Your task to perform on an android device: toggle notifications settings in the gmail app Image 0: 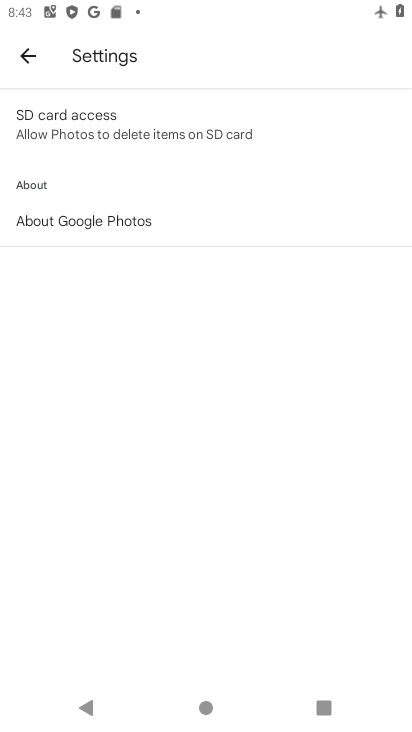
Step 0: press home button
Your task to perform on an android device: toggle notifications settings in the gmail app Image 1: 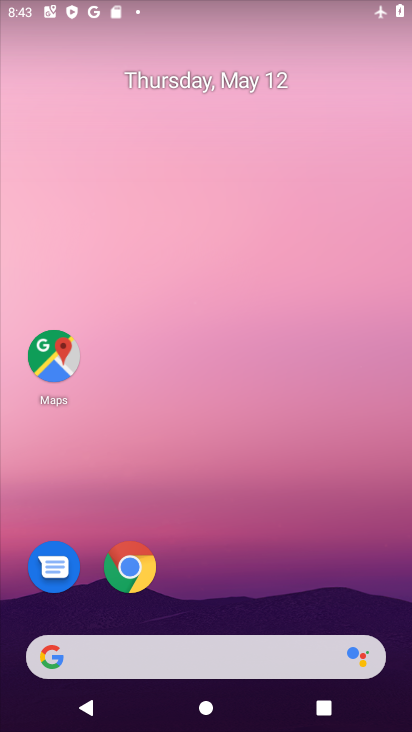
Step 1: drag from (207, 652) to (272, 147)
Your task to perform on an android device: toggle notifications settings in the gmail app Image 2: 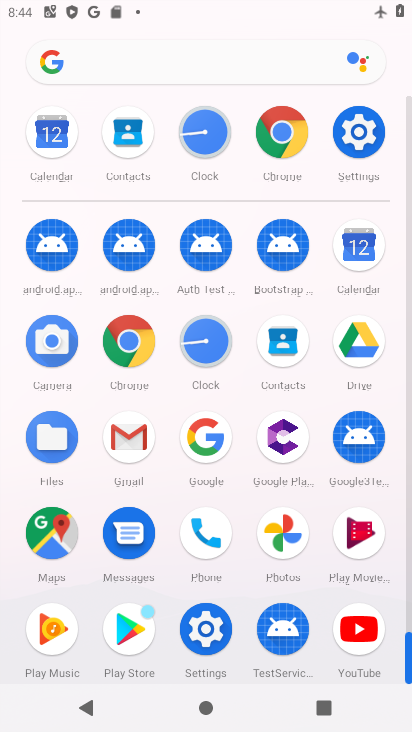
Step 2: click (124, 460)
Your task to perform on an android device: toggle notifications settings in the gmail app Image 3: 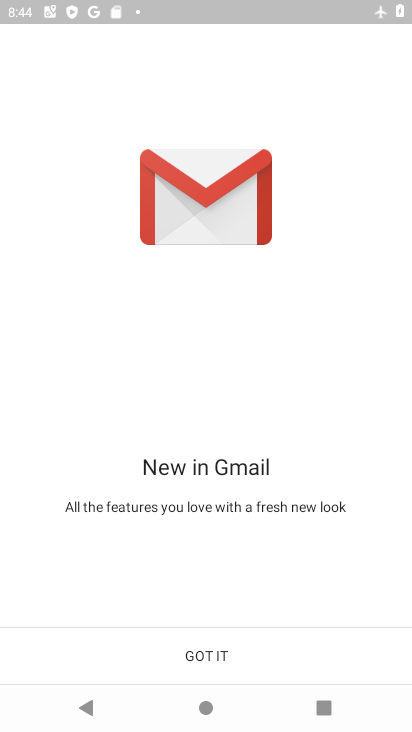
Step 3: click (241, 653)
Your task to perform on an android device: toggle notifications settings in the gmail app Image 4: 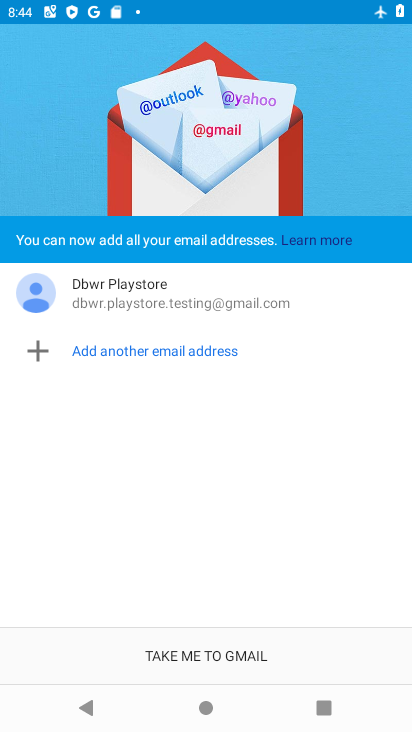
Step 4: click (241, 651)
Your task to perform on an android device: toggle notifications settings in the gmail app Image 5: 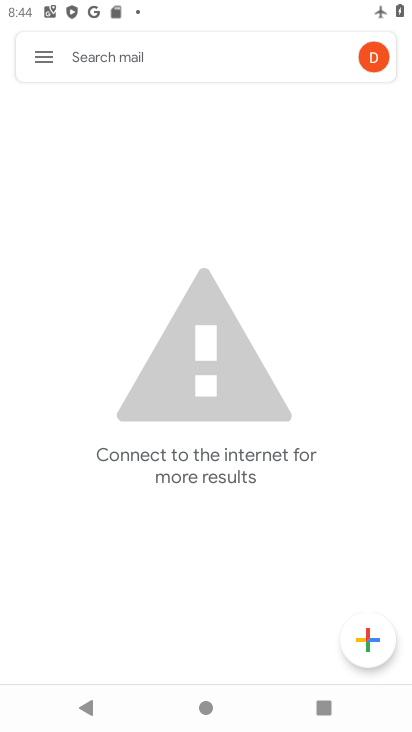
Step 5: click (46, 53)
Your task to perform on an android device: toggle notifications settings in the gmail app Image 6: 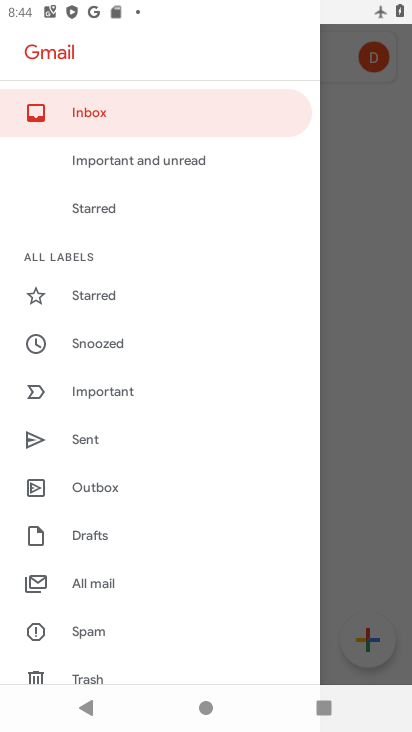
Step 6: drag from (109, 522) to (135, 347)
Your task to perform on an android device: toggle notifications settings in the gmail app Image 7: 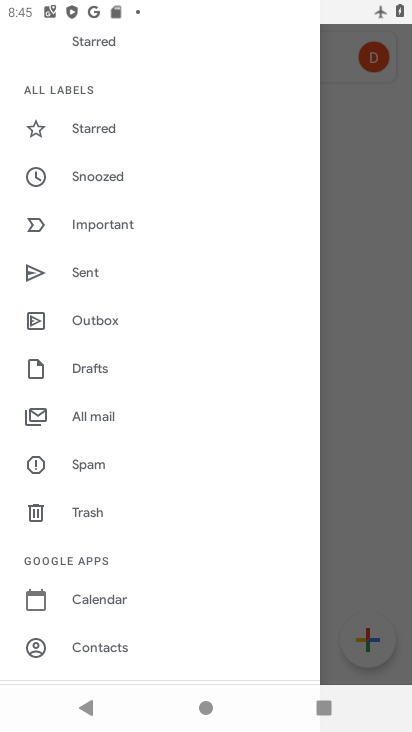
Step 7: drag from (98, 473) to (149, 218)
Your task to perform on an android device: toggle notifications settings in the gmail app Image 8: 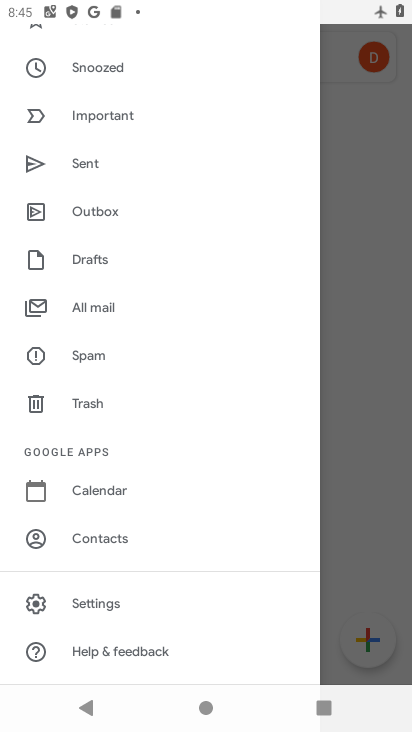
Step 8: click (88, 593)
Your task to perform on an android device: toggle notifications settings in the gmail app Image 9: 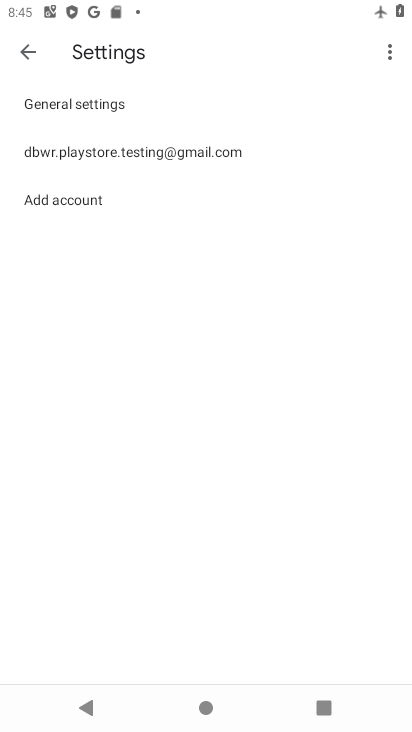
Step 9: click (129, 97)
Your task to perform on an android device: toggle notifications settings in the gmail app Image 10: 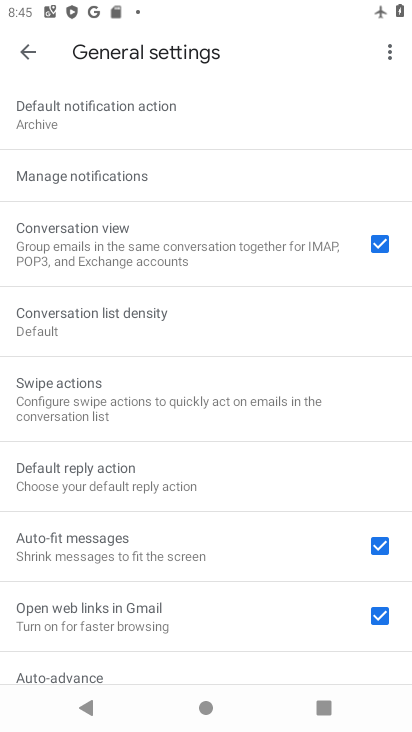
Step 10: click (165, 176)
Your task to perform on an android device: toggle notifications settings in the gmail app Image 11: 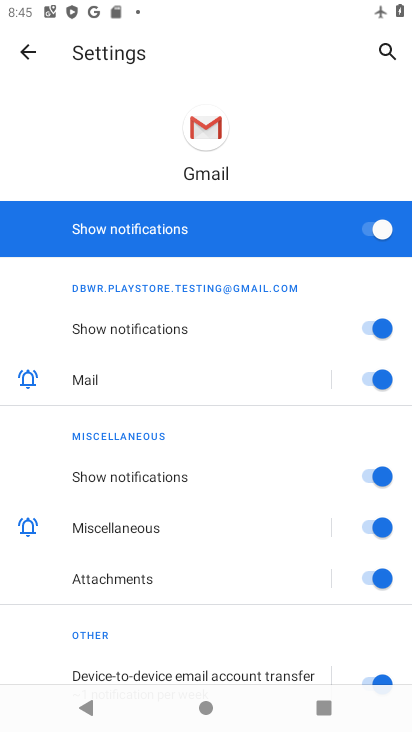
Step 11: click (312, 238)
Your task to perform on an android device: toggle notifications settings in the gmail app Image 12: 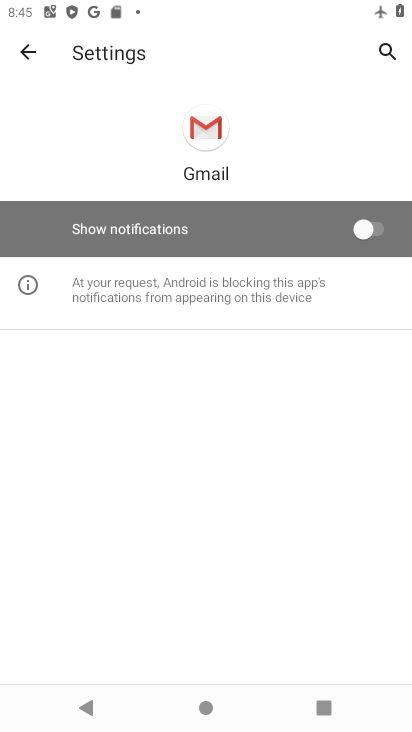
Step 12: task complete